Your task to perform on an android device: check battery use Image 0: 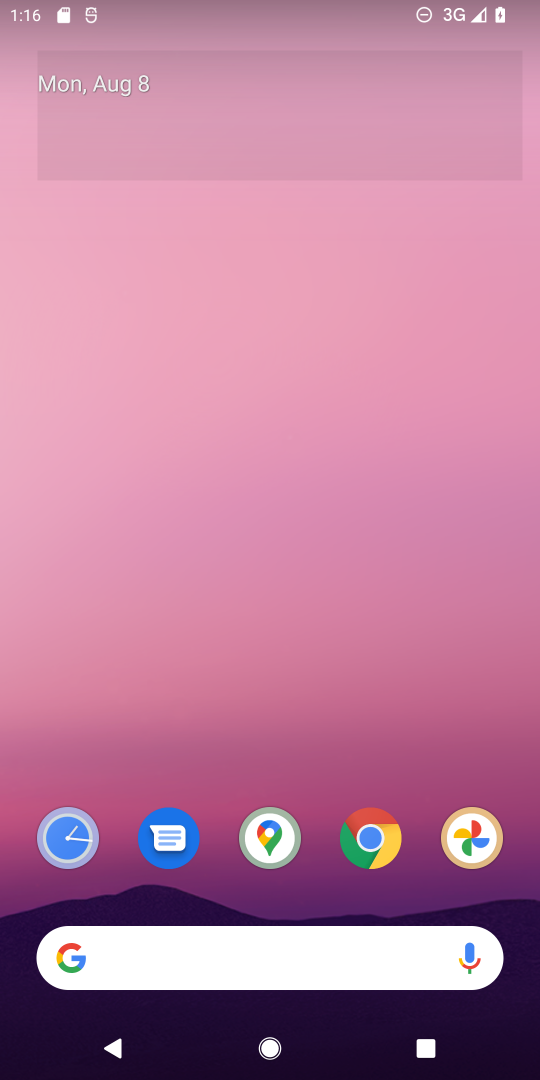
Step 0: press home button
Your task to perform on an android device: check battery use Image 1: 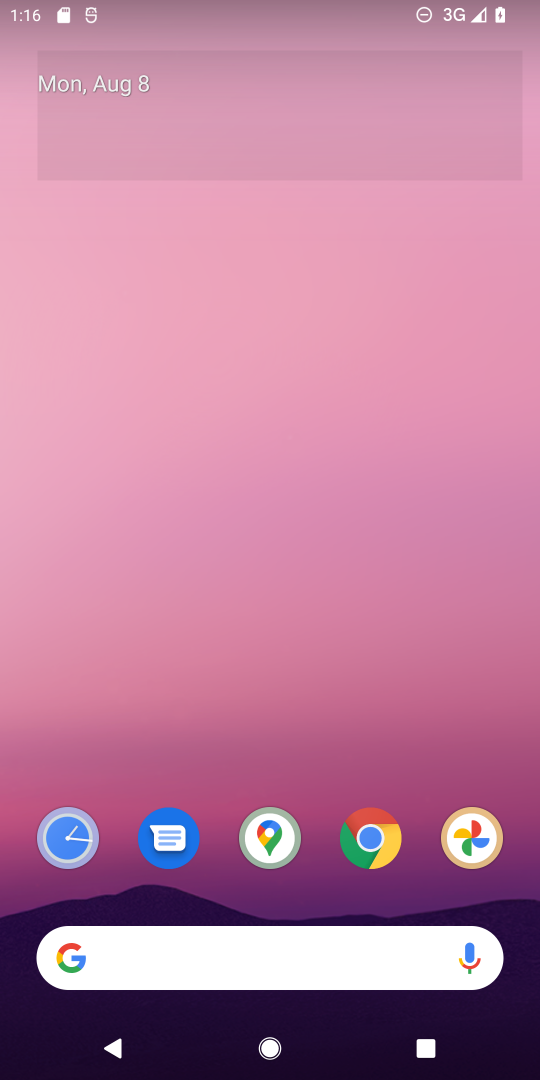
Step 1: drag from (219, 881) to (277, 244)
Your task to perform on an android device: check battery use Image 2: 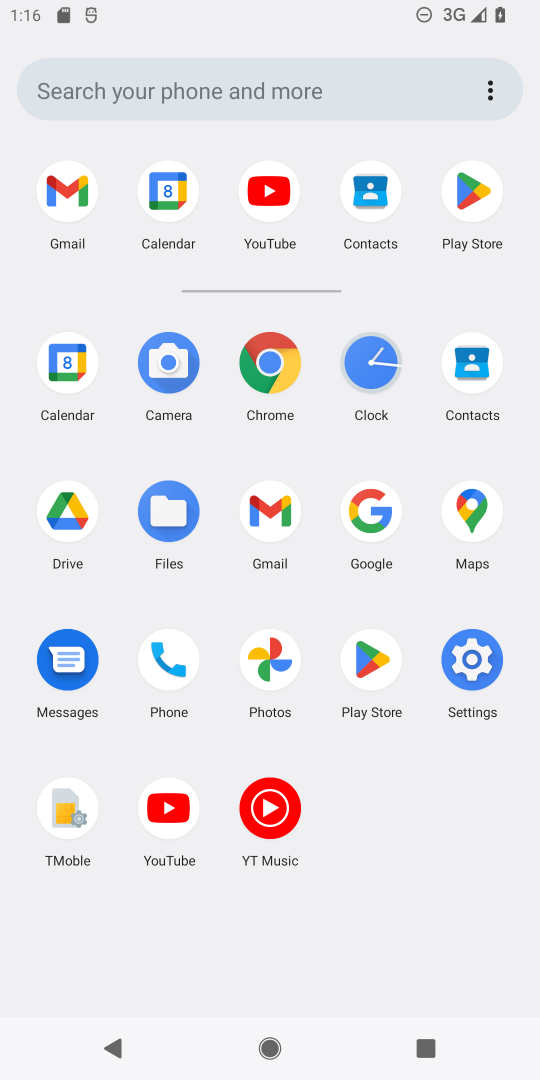
Step 2: click (460, 662)
Your task to perform on an android device: check battery use Image 3: 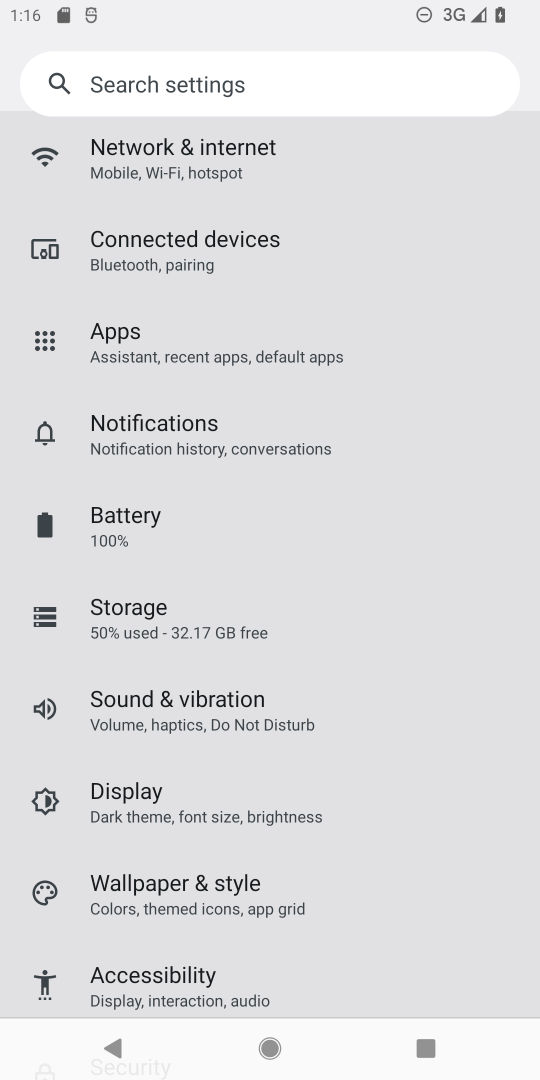
Step 3: click (118, 520)
Your task to perform on an android device: check battery use Image 4: 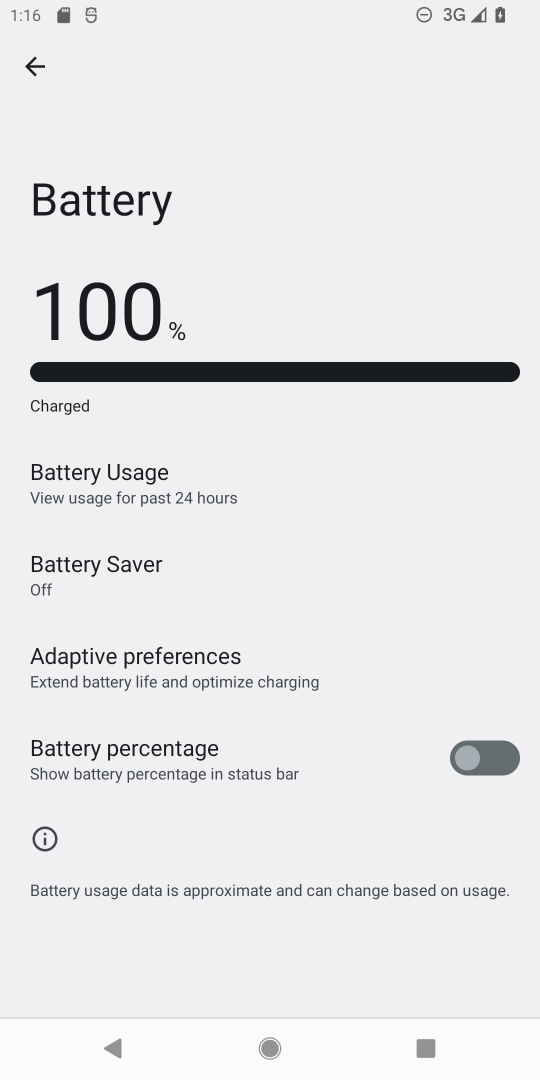
Step 4: click (73, 484)
Your task to perform on an android device: check battery use Image 5: 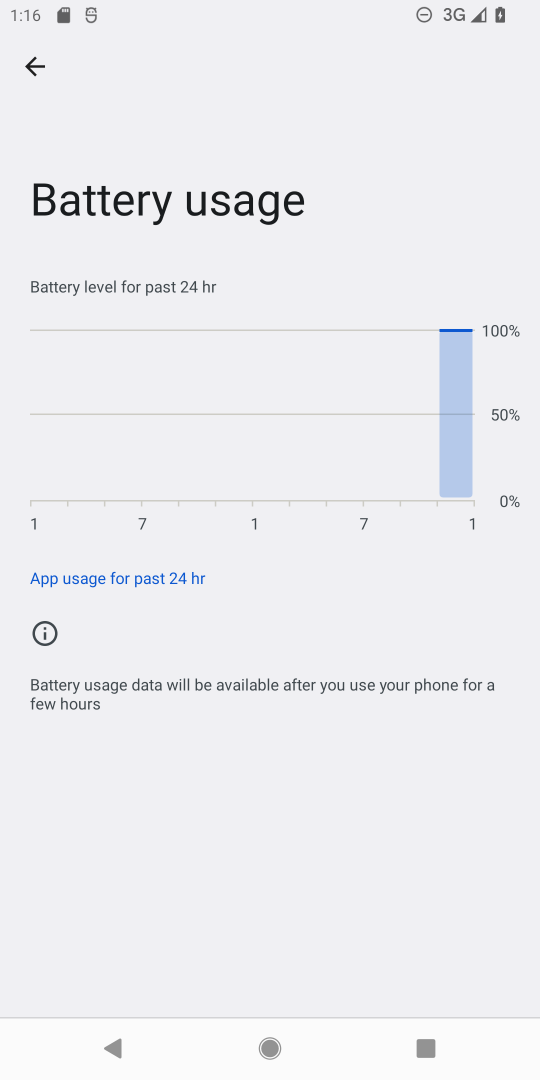
Step 5: task complete